Your task to perform on an android device: open app "Adobe Acrobat Reader" Image 0: 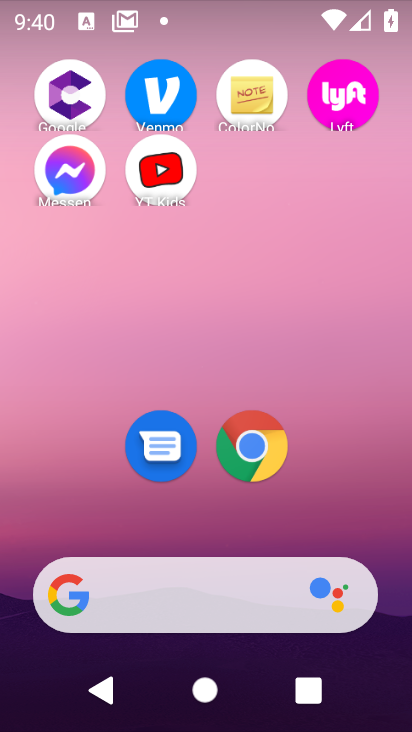
Step 0: drag from (202, 558) to (286, 65)
Your task to perform on an android device: open app "Adobe Acrobat Reader" Image 1: 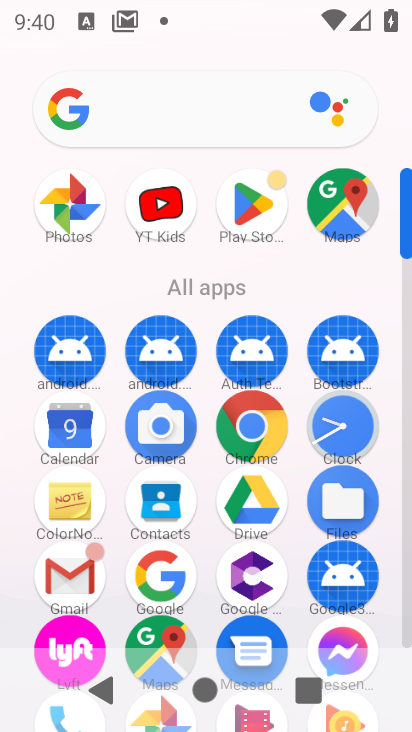
Step 1: click (260, 213)
Your task to perform on an android device: open app "Adobe Acrobat Reader" Image 2: 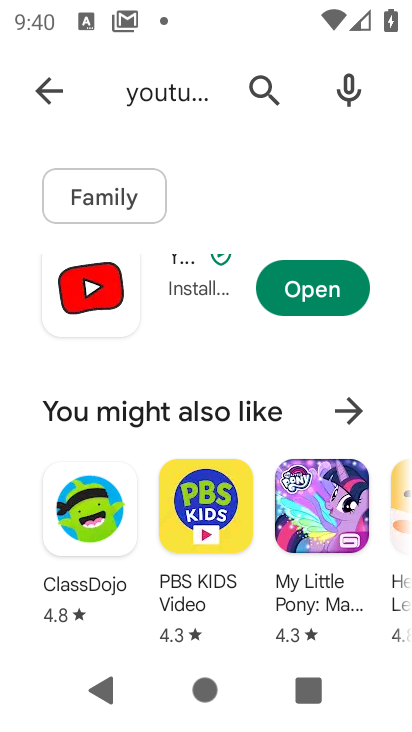
Step 2: click (253, 81)
Your task to perform on an android device: open app "Adobe Acrobat Reader" Image 3: 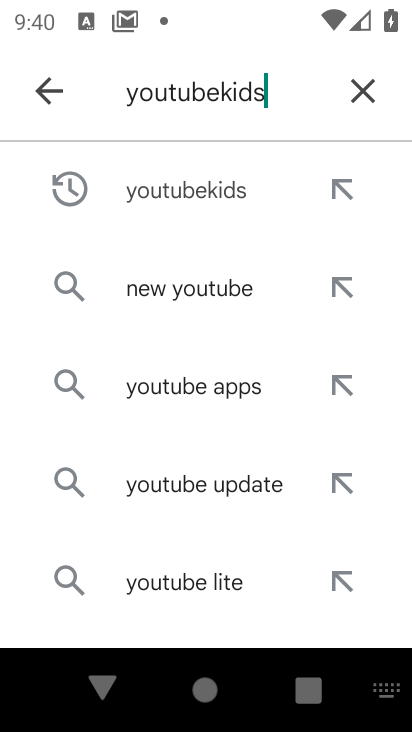
Step 3: click (366, 74)
Your task to perform on an android device: open app "Adobe Acrobat Reader" Image 4: 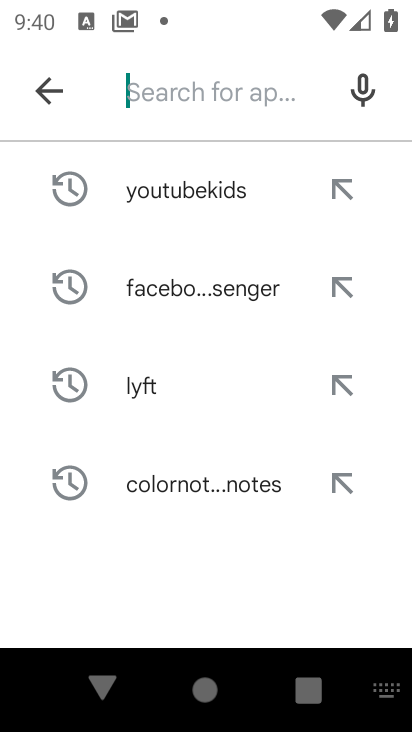
Step 4: click (175, 86)
Your task to perform on an android device: open app "Adobe Acrobat Reader" Image 5: 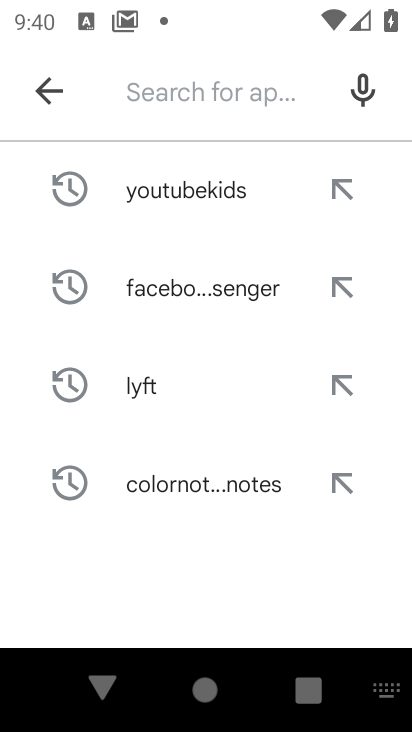
Step 5: type "Adobe Acrobat Reader"
Your task to perform on an android device: open app "Adobe Acrobat Reader" Image 6: 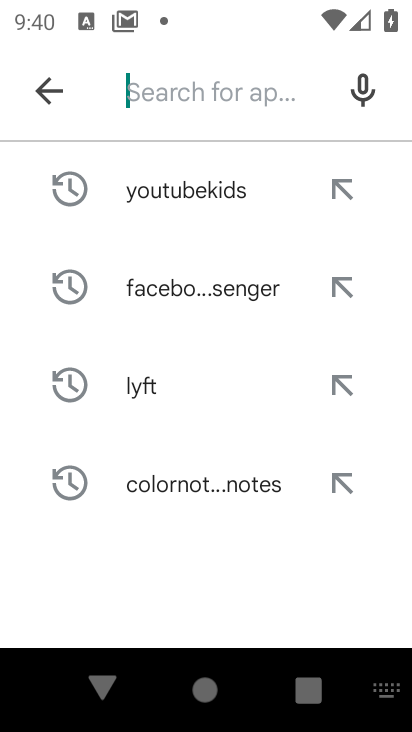
Step 6: click (155, 548)
Your task to perform on an android device: open app "Adobe Acrobat Reader" Image 7: 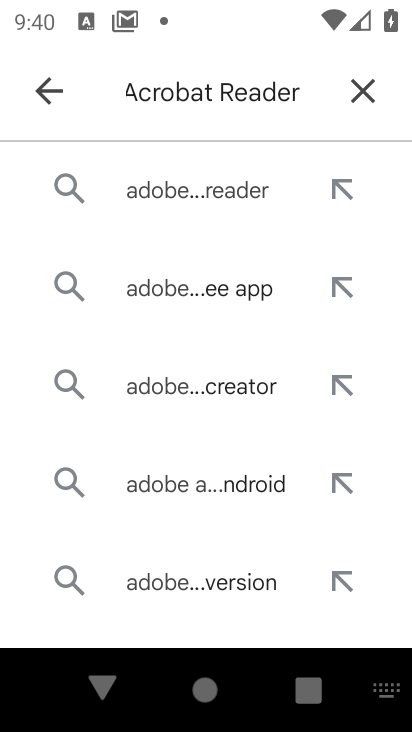
Step 7: click (174, 192)
Your task to perform on an android device: open app "Adobe Acrobat Reader" Image 8: 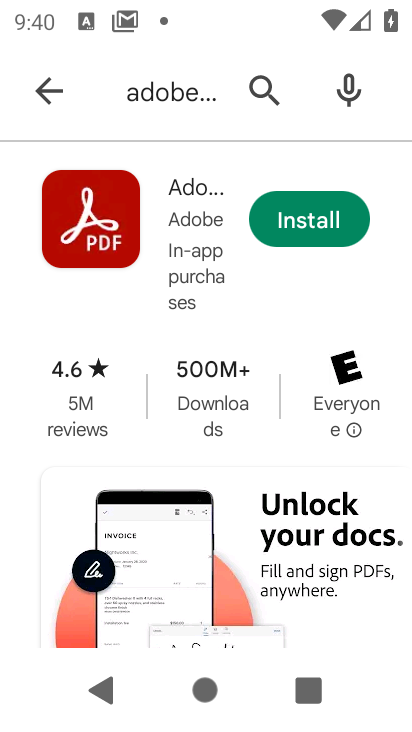
Step 8: task complete